Your task to perform on an android device: Open Chrome and go to settings Image 0: 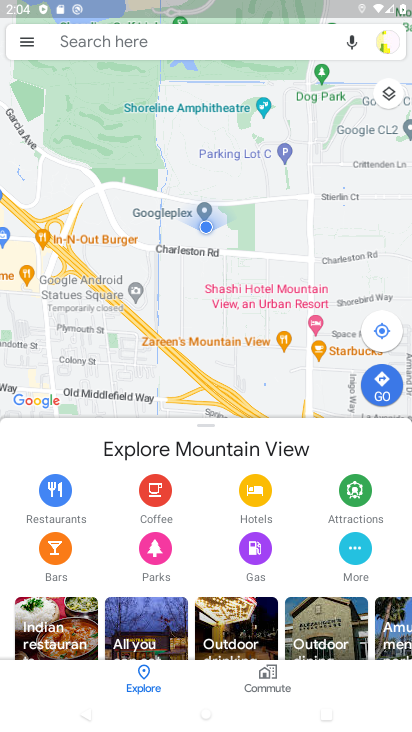
Step 0: press home button
Your task to perform on an android device: Open Chrome and go to settings Image 1: 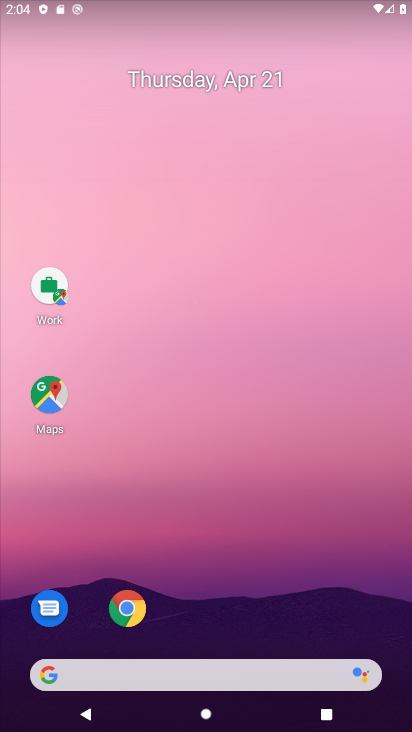
Step 1: click (134, 609)
Your task to perform on an android device: Open Chrome and go to settings Image 2: 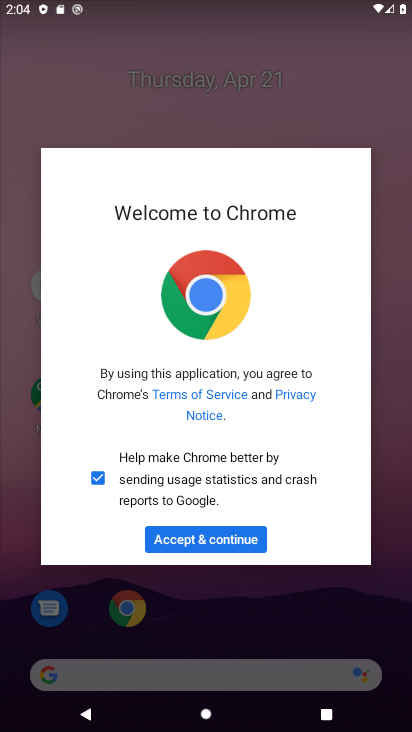
Step 2: click (230, 528)
Your task to perform on an android device: Open Chrome and go to settings Image 3: 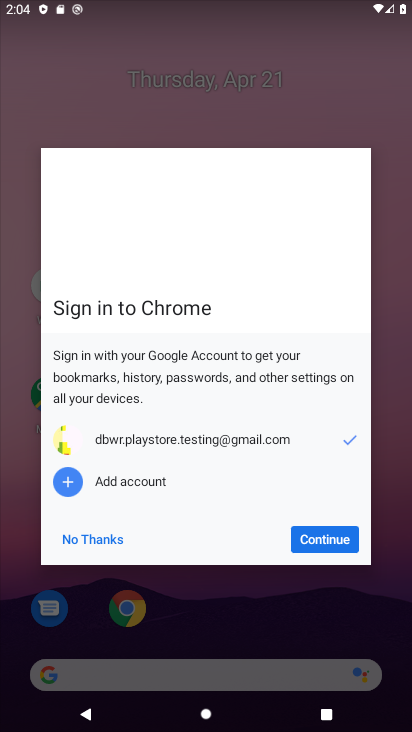
Step 3: click (319, 531)
Your task to perform on an android device: Open Chrome and go to settings Image 4: 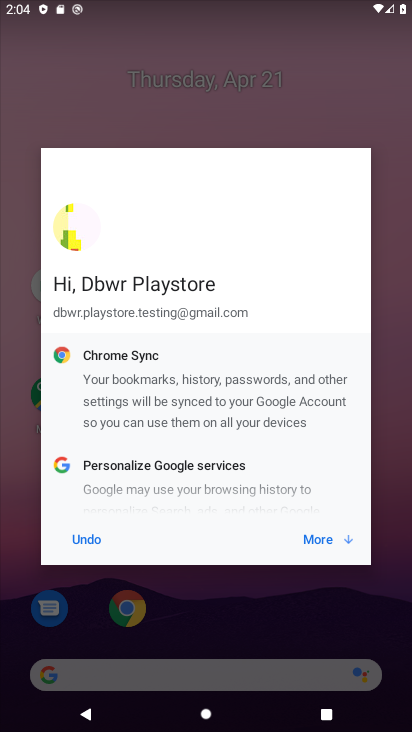
Step 4: click (324, 533)
Your task to perform on an android device: Open Chrome and go to settings Image 5: 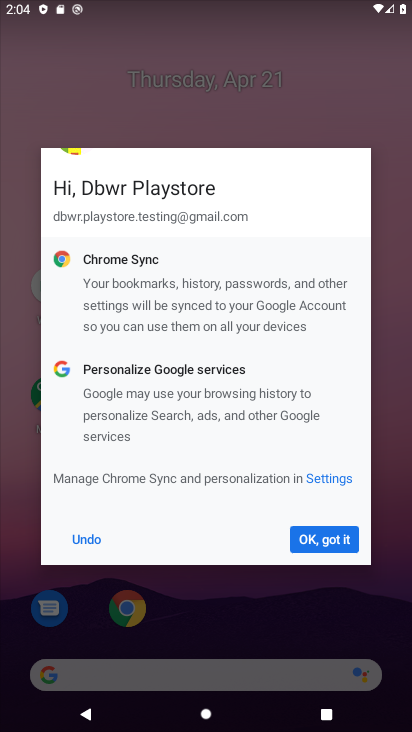
Step 5: click (325, 537)
Your task to perform on an android device: Open Chrome and go to settings Image 6: 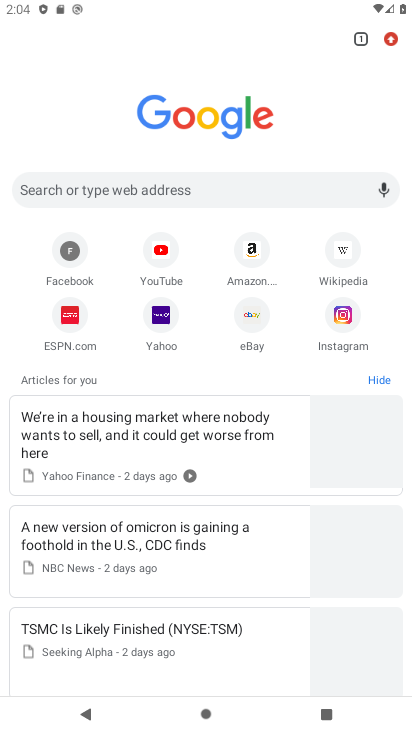
Step 6: click (388, 42)
Your task to perform on an android device: Open Chrome and go to settings Image 7: 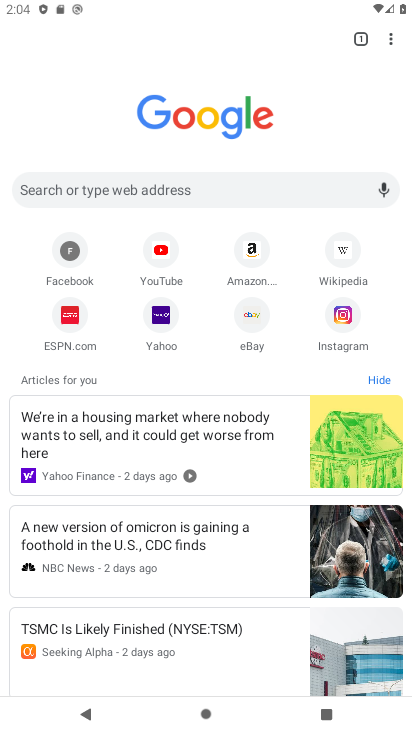
Step 7: click (391, 31)
Your task to perform on an android device: Open Chrome and go to settings Image 8: 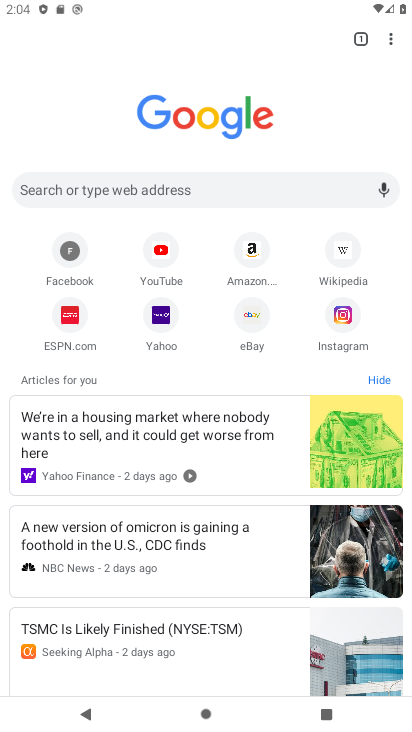
Step 8: click (392, 44)
Your task to perform on an android device: Open Chrome and go to settings Image 9: 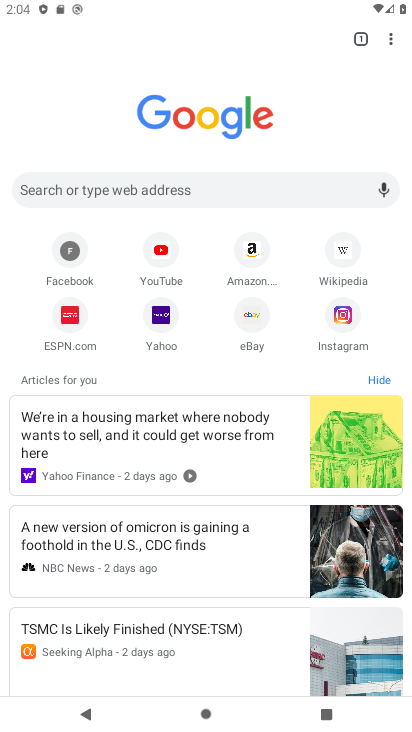
Step 9: click (389, 35)
Your task to perform on an android device: Open Chrome and go to settings Image 10: 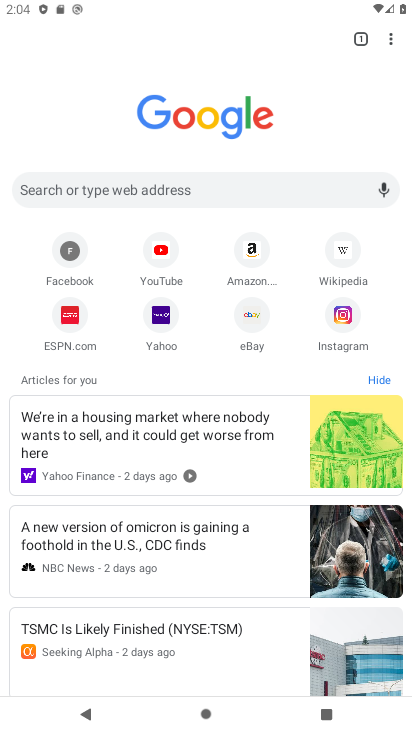
Step 10: click (389, 36)
Your task to perform on an android device: Open Chrome and go to settings Image 11: 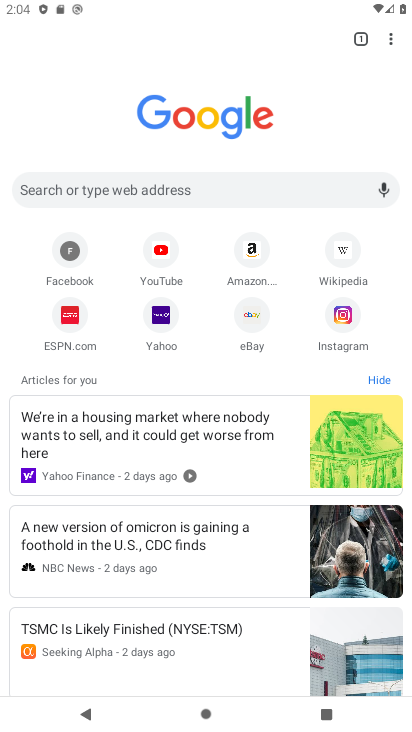
Step 11: click (390, 40)
Your task to perform on an android device: Open Chrome and go to settings Image 12: 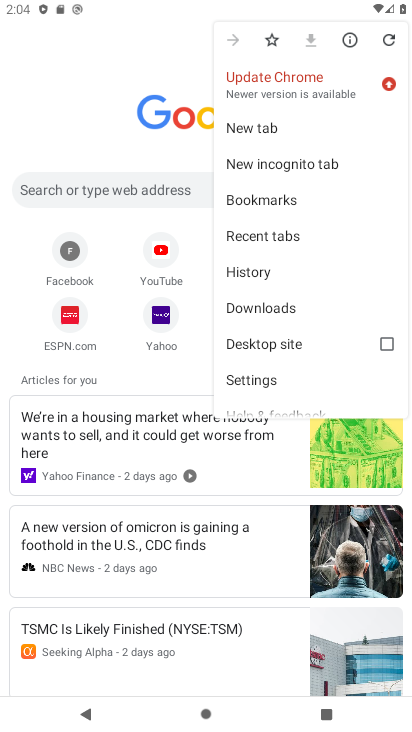
Step 12: click (260, 379)
Your task to perform on an android device: Open Chrome and go to settings Image 13: 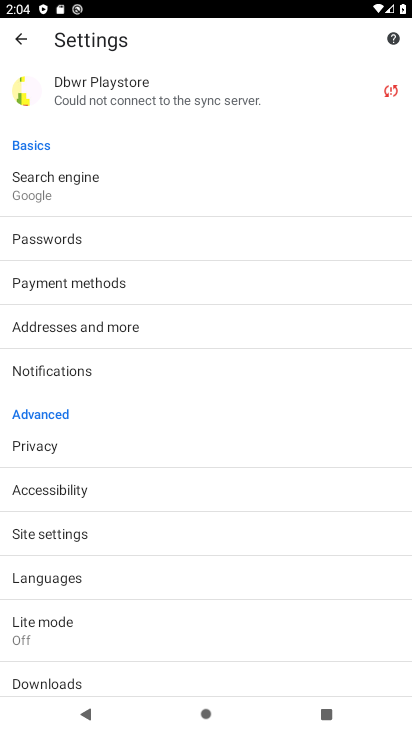
Step 13: task complete